Your task to perform on an android device: check storage Image 0: 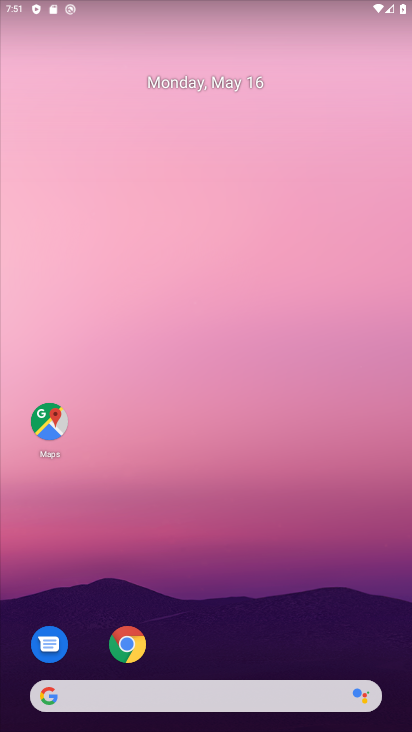
Step 0: drag from (254, 577) to (229, 53)
Your task to perform on an android device: check storage Image 1: 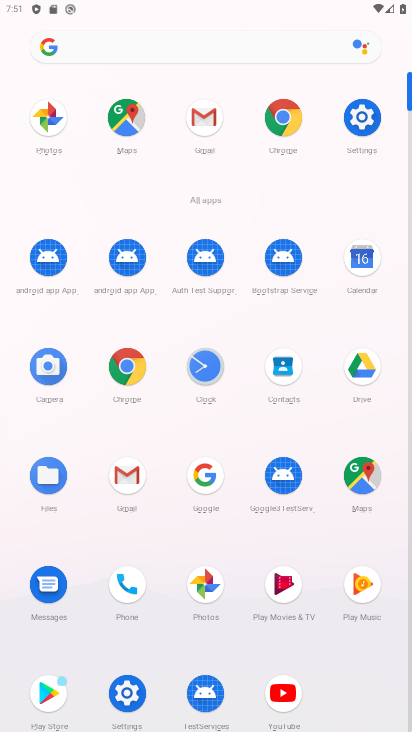
Step 1: click (370, 127)
Your task to perform on an android device: check storage Image 2: 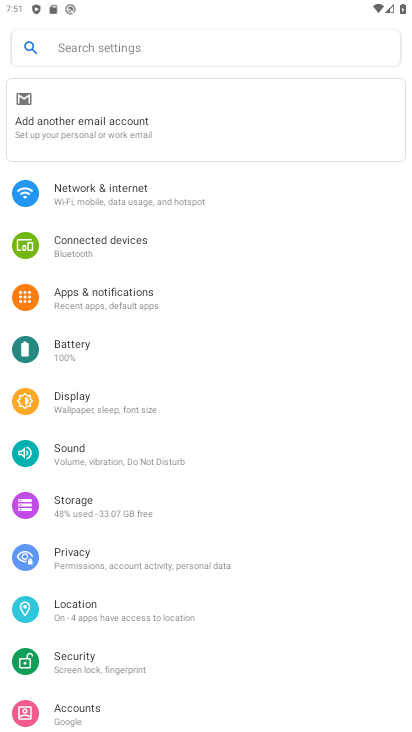
Step 2: click (120, 501)
Your task to perform on an android device: check storage Image 3: 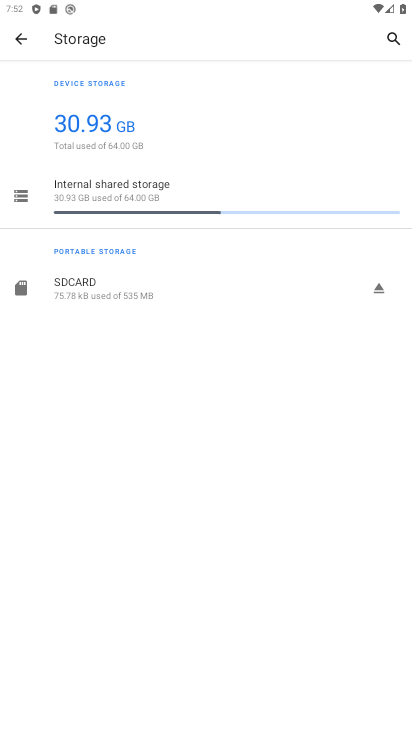
Step 3: task complete